Your task to perform on an android device: star an email in the gmail app Image 0: 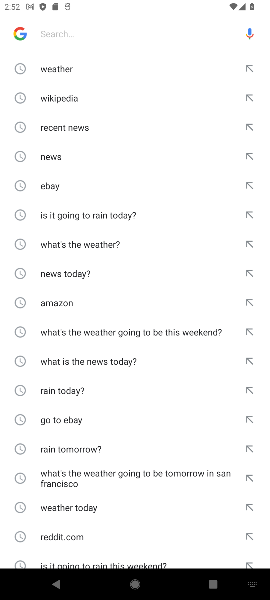
Step 0: press home button
Your task to perform on an android device: star an email in the gmail app Image 1: 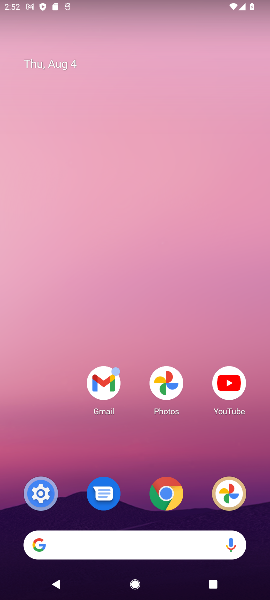
Step 1: drag from (19, 573) to (193, 115)
Your task to perform on an android device: star an email in the gmail app Image 2: 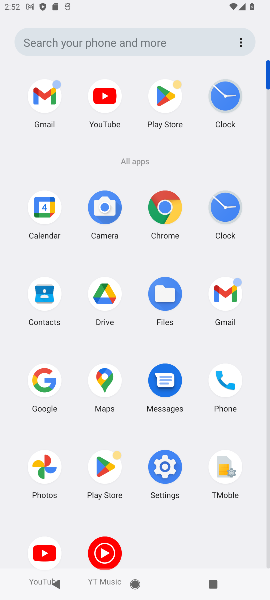
Step 2: click (222, 288)
Your task to perform on an android device: star an email in the gmail app Image 3: 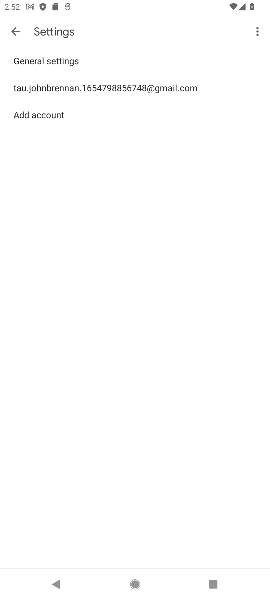
Step 3: click (7, 27)
Your task to perform on an android device: star an email in the gmail app Image 4: 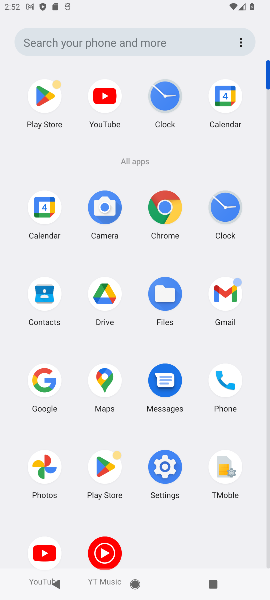
Step 4: click (218, 292)
Your task to perform on an android device: star an email in the gmail app Image 5: 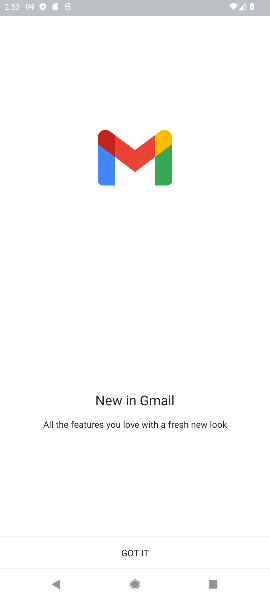
Step 5: click (126, 554)
Your task to perform on an android device: star an email in the gmail app Image 6: 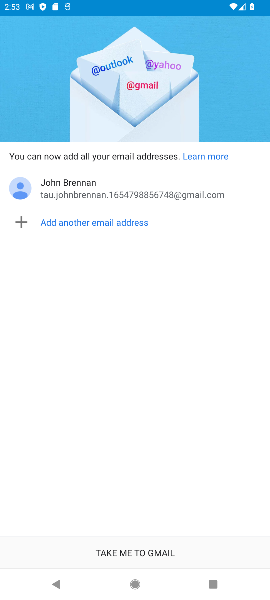
Step 6: click (127, 544)
Your task to perform on an android device: star an email in the gmail app Image 7: 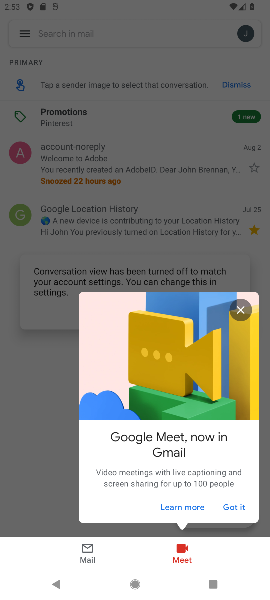
Step 7: click (240, 307)
Your task to perform on an android device: star an email in the gmail app Image 8: 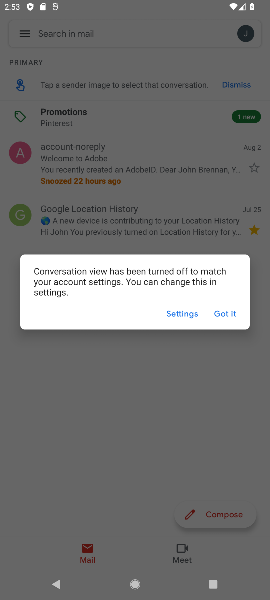
Step 8: click (229, 310)
Your task to perform on an android device: star an email in the gmail app Image 9: 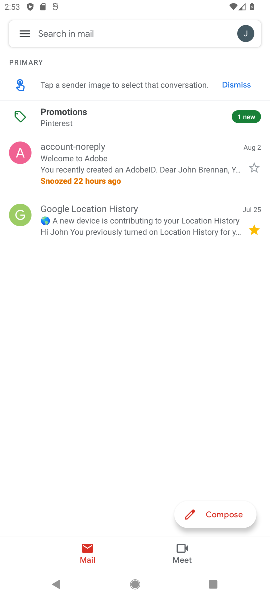
Step 9: click (13, 30)
Your task to perform on an android device: star an email in the gmail app Image 10: 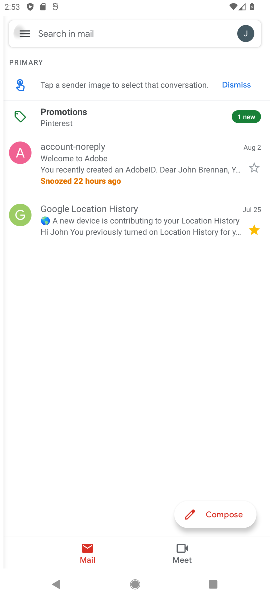
Step 10: click (23, 35)
Your task to perform on an android device: star an email in the gmail app Image 11: 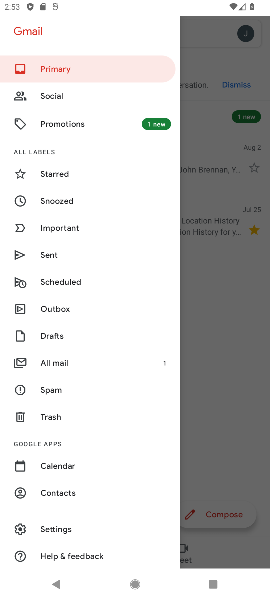
Step 11: click (51, 171)
Your task to perform on an android device: star an email in the gmail app Image 12: 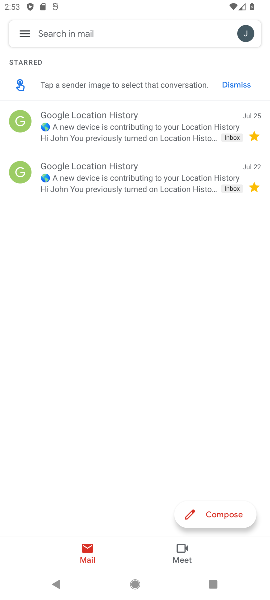
Step 12: task complete